Your task to perform on an android device: allow notifications from all sites in the chrome app Image 0: 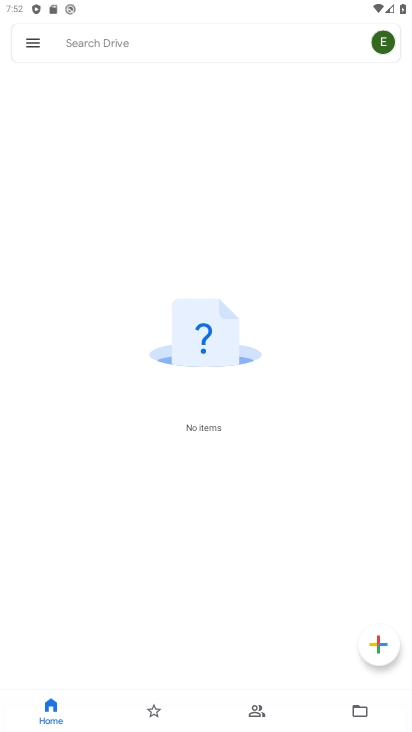
Step 0: press home button
Your task to perform on an android device: allow notifications from all sites in the chrome app Image 1: 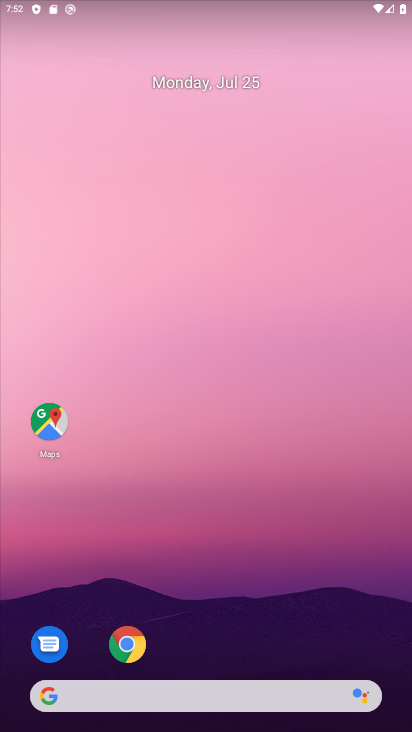
Step 1: click (127, 644)
Your task to perform on an android device: allow notifications from all sites in the chrome app Image 2: 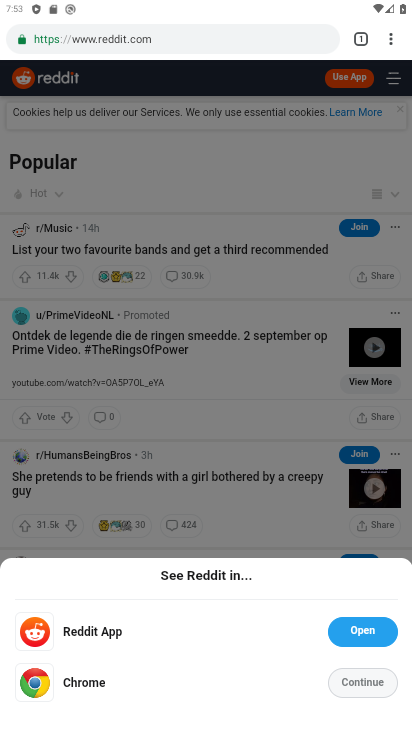
Step 2: click (392, 42)
Your task to perform on an android device: allow notifications from all sites in the chrome app Image 3: 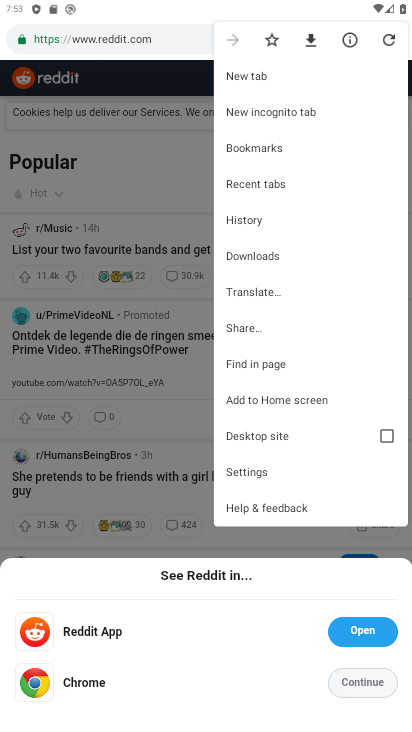
Step 3: click (252, 468)
Your task to perform on an android device: allow notifications from all sites in the chrome app Image 4: 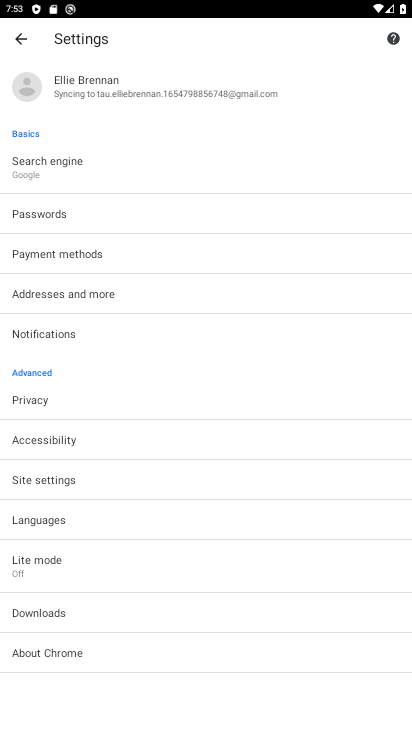
Step 4: click (68, 333)
Your task to perform on an android device: allow notifications from all sites in the chrome app Image 5: 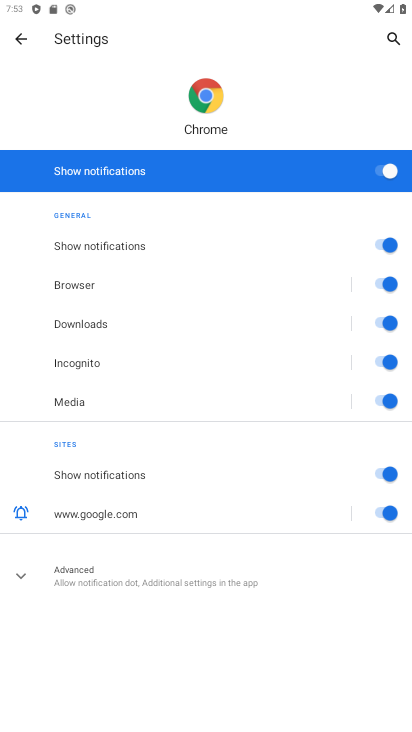
Step 5: task complete